Your task to perform on an android device: Open Google Chrome and open the bookmarks view Image 0: 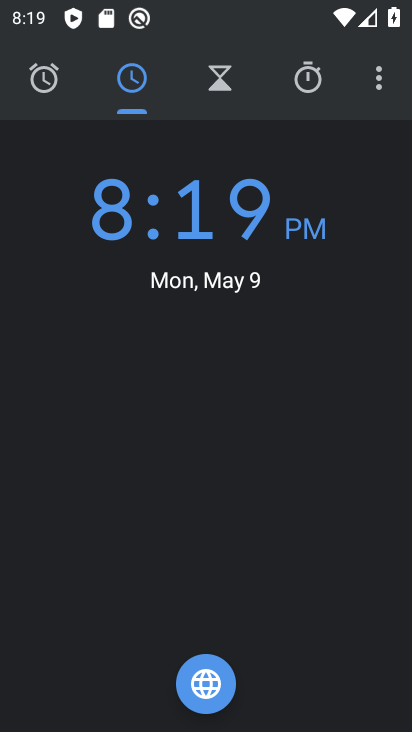
Step 0: press back button
Your task to perform on an android device: Open Google Chrome and open the bookmarks view Image 1: 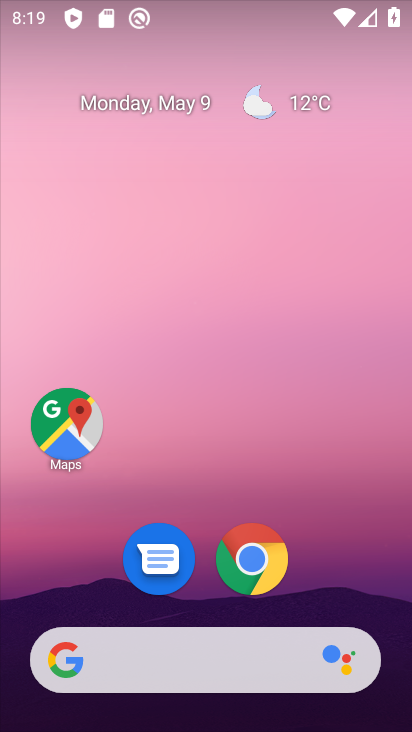
Step 1: drag from (409, 607) to (97, 36)
Your task to perform on an android device: Open Google Chrome and open the bookmarks view Image 2: 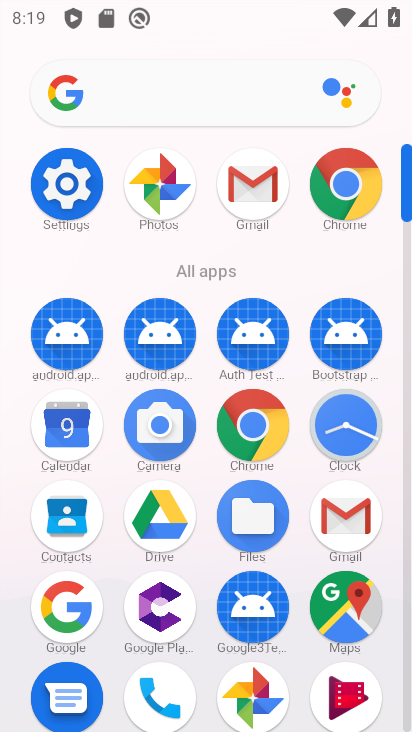
Step 2: click (341, 198)
Your task to perform on an android device: Open Google Chrome and open the bookmarks view Image 3: 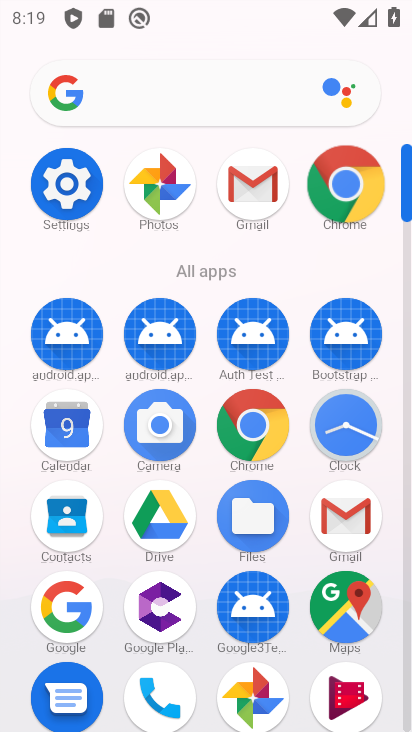
Step 3: click (341, 197)
Your task to perform on an android device: Open Google Chrome and open the bookmarks view Image 4: 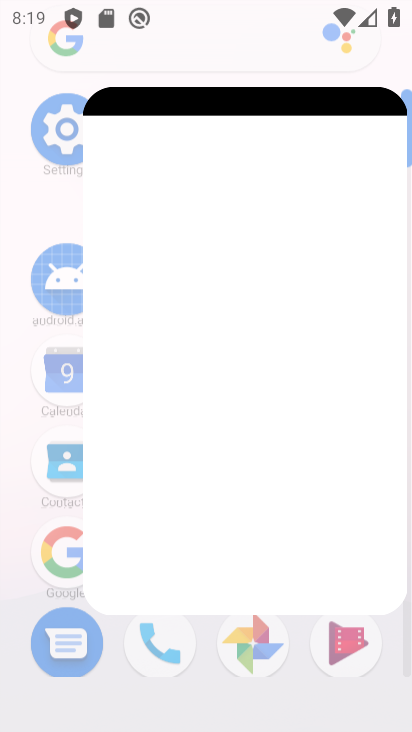
Step 4: click (347, 201)
Your task to perform on an android device: Open Google Chrome and open the bookmarks view Image 5: 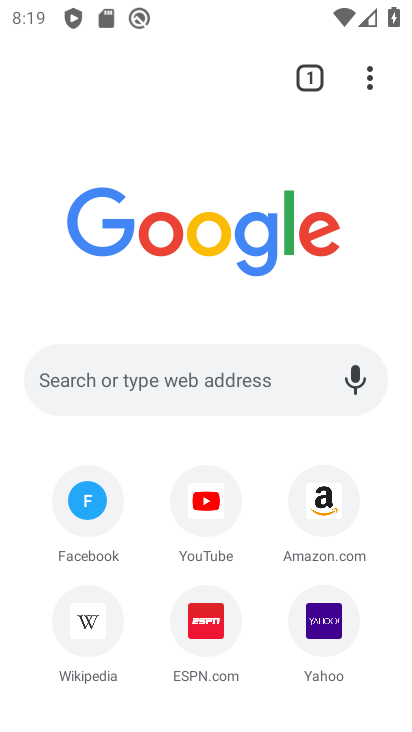
Step 5: click (377, 76)
Your task to perform on an android device: Open Google Chrome and open the bookmarks view Image 6: 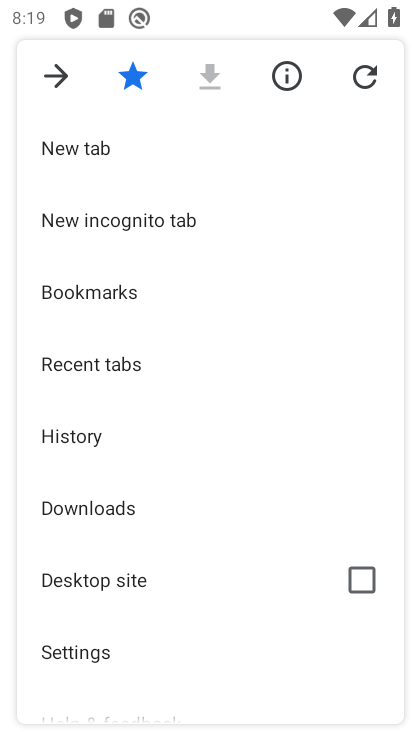
Step 6: click (79, 285)
Your task to perform on an android device: Open Google Chrome and open the bookmarks view Image 7: 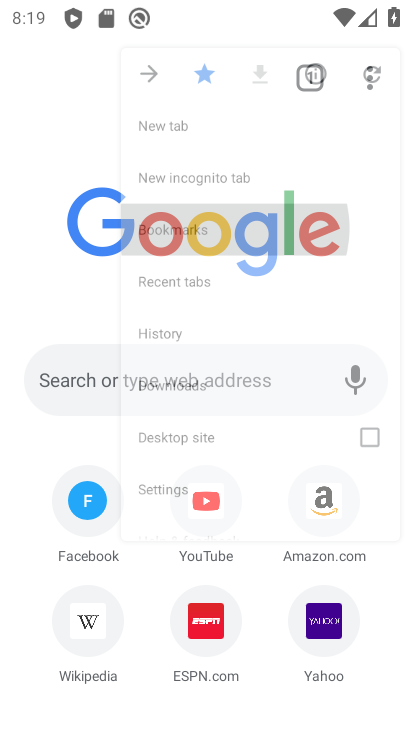
Step 7: click (78, 284)
Your task to perform on an android device: Open Google Chrome and open the bookmarks view Image 8: 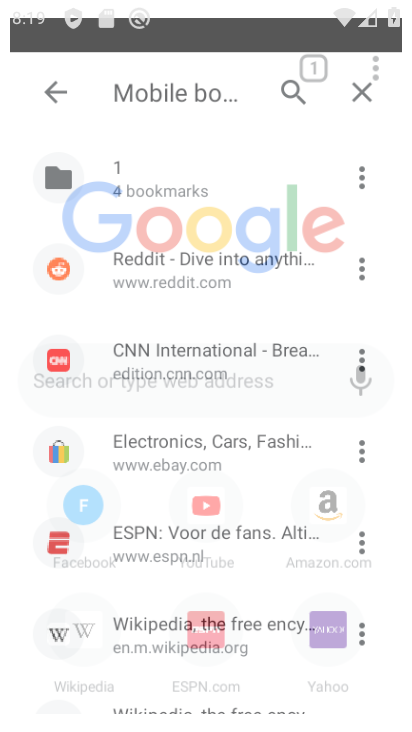
Step 8: click (77, 284)
Your task to perform on an android device: Open Google Chrome and open the bookmarks view Image 9: 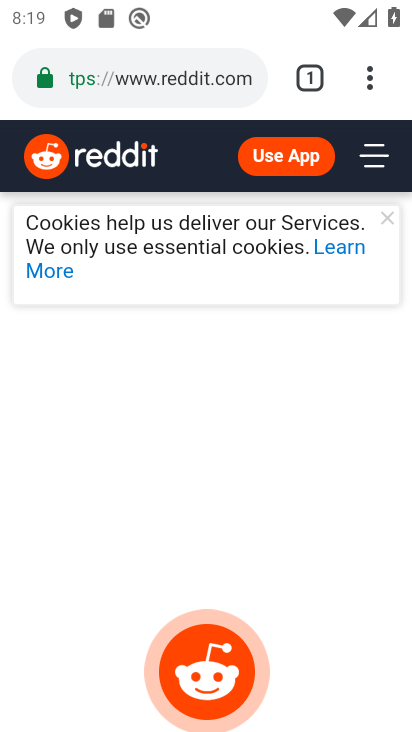
Step 9: drag from (209, 463) to (227, 159)
Your task to perform on an android device: Open Google Chrome and open the bookmarks view Image 10: 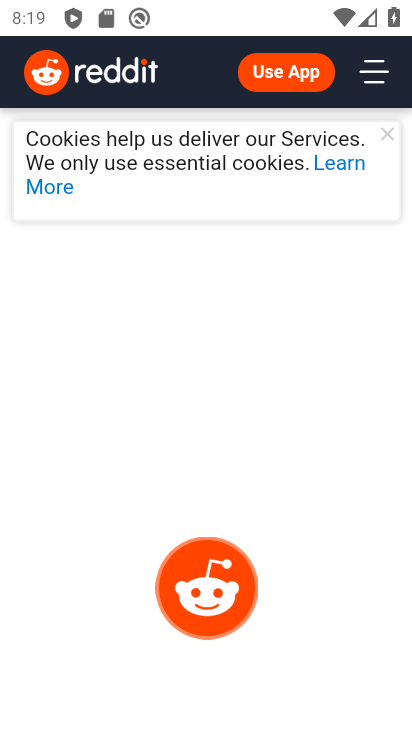
Step 10: drag from (304, 564) to (293, 242)
Your task to perform on an android device: Open Google Chrome and open the bookmarks view Image 11: 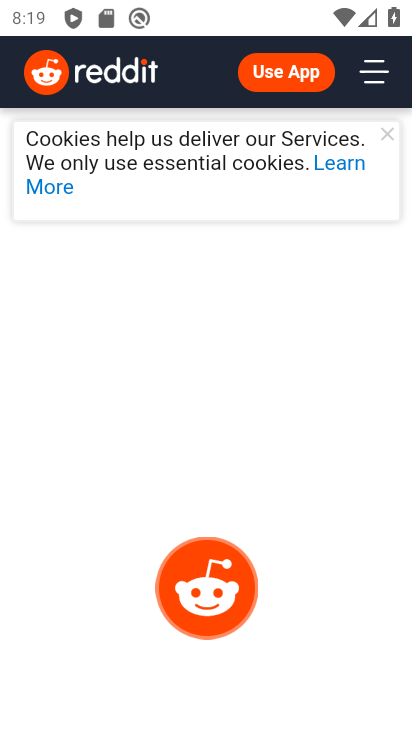
Step 11: drag from (300, 329) to (254, 2)
Your task to perform on an android device: Open Google Chrome and open the bookmarks view Image 12: 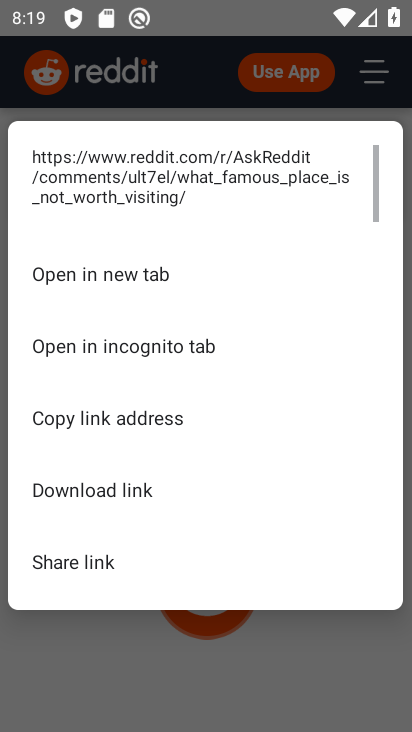
Step 12: drag from (274, 458) to (258, 107)
Your task to perform on an android device: Open Google Chrome and open the bookmarks view Image 13: 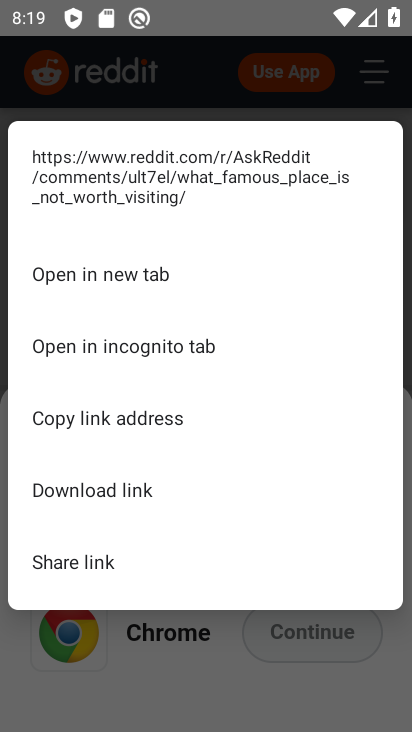
Step 13: click (220, 681)
Your task to perform on an android device: Open Google Chrome and open the bookmarks view Image 14: 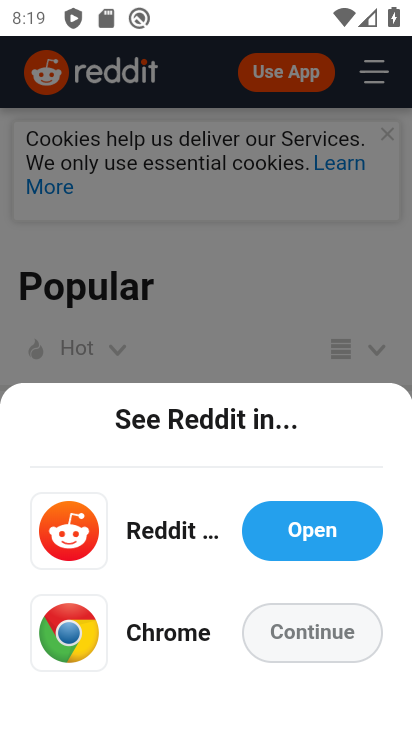
Step 14: click (203, 72)
Your task to perform on an android device: Open Google Chrome and open the bookmarks view Image 15: 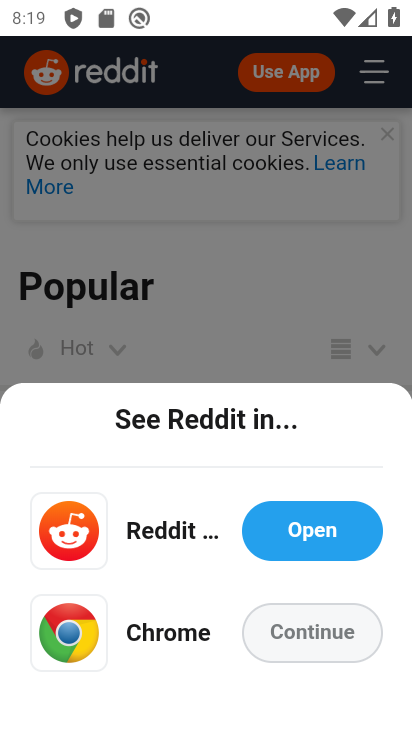
Step 15: click (269, 327)
Your task to perform on an android device: Open Google Chrome and open the bookmarks view Image 16: 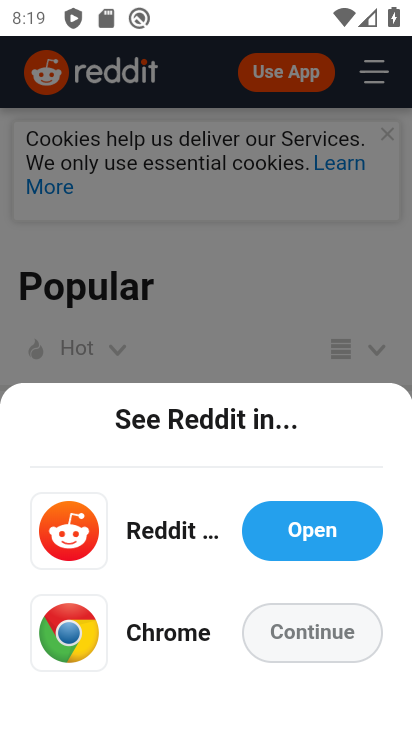
Step 16: drag from (230, 222) to (251, 267)
Your task to perform on an android device: Open Google Chrome and open the bookmarks view Image 17: 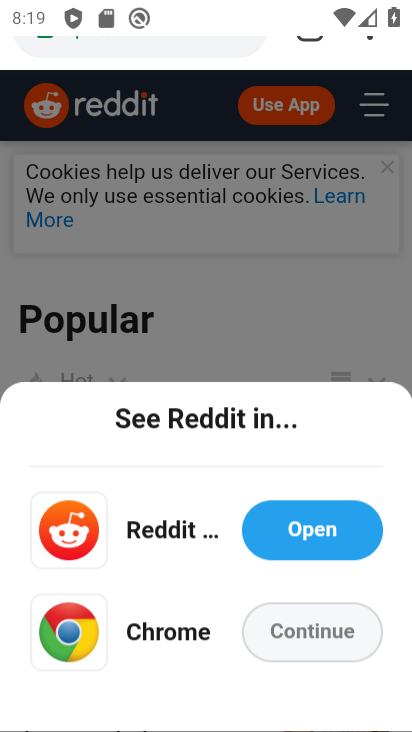
Step 17: click (251, 270)
Your task to perform on an android device: Open Google Chrome and open the bookmarks view Image 18: 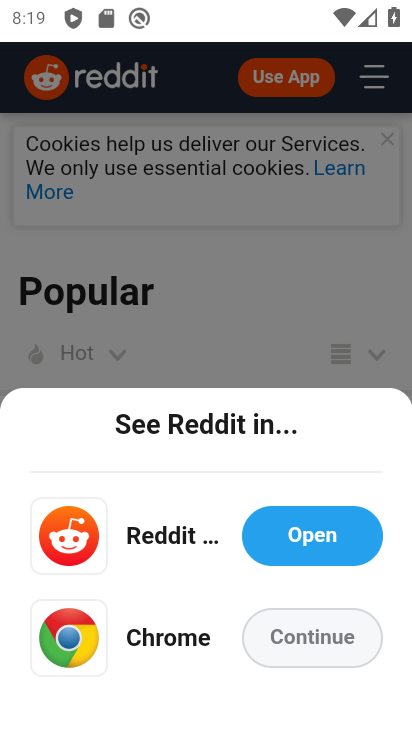
Step 18: click (250, 268)
Your task to perform on an android device: Open Google Chrome and open the bookmarks view Image 19: 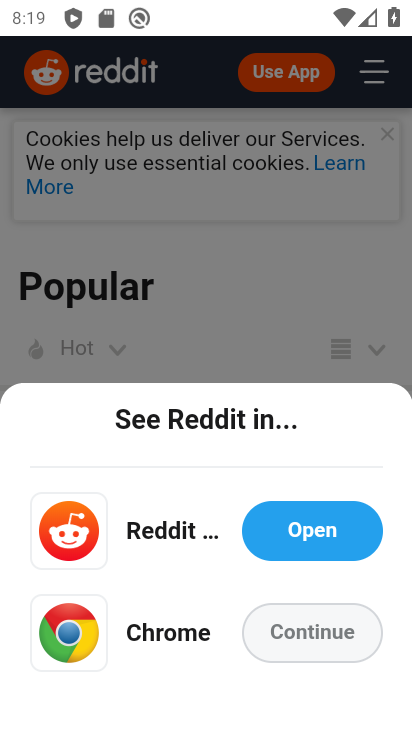
Step 19: task complete